Your task to perform on an android device: turn pop-ups off in chrome Image 0: 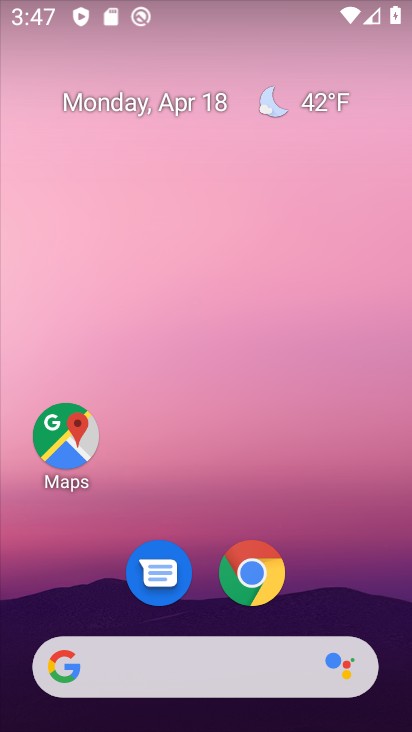
Step 0: click (251, 577)
Your task to perform on an android device: turn pop-ups off in chrome Image 1: 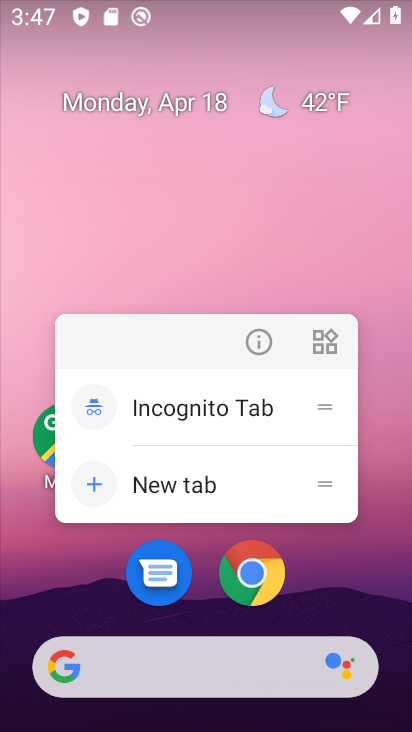
Step 1: click (256, 579)
Your task to perform on an android device: turn pop-ups off in chrome Image 2: 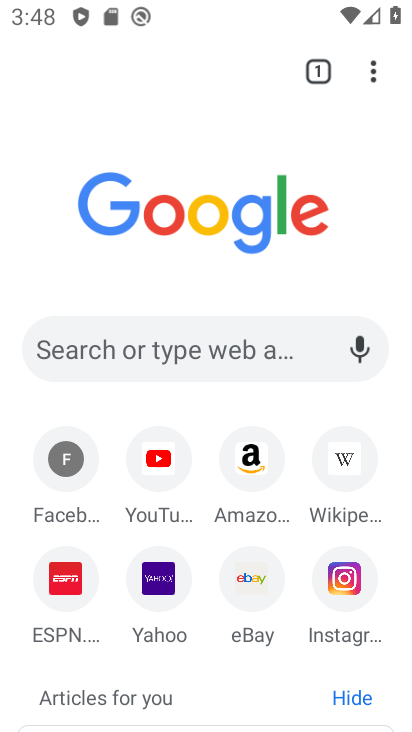
Step 2: click (371, 67)
Your task to perform on an android device: turn pop-ups off in chrome Image 3: 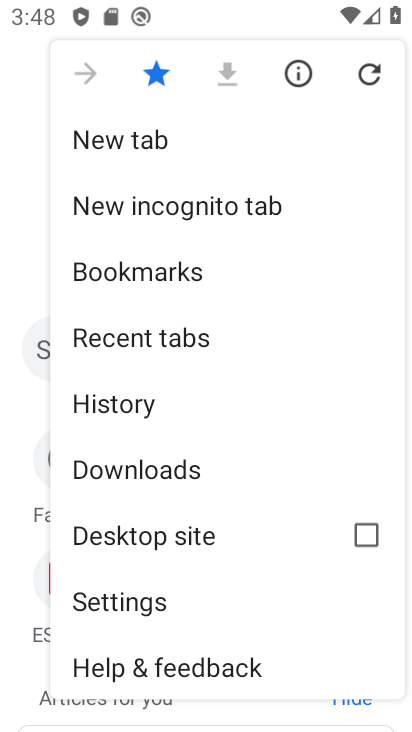
Step 3: click (128, 607)
Your task to perform on an android device: turn pop-ups off in chrome Image 4: 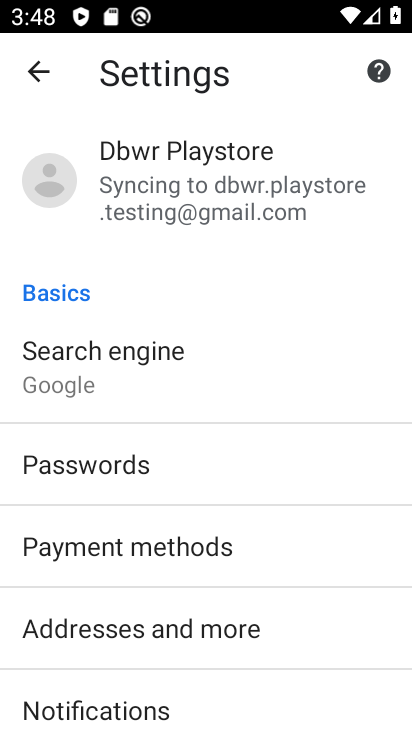
Step 4: drag from (167, 716) to (135, 391)
Your task to perform on an android device: turn pop-ups off in chrome Image 5: 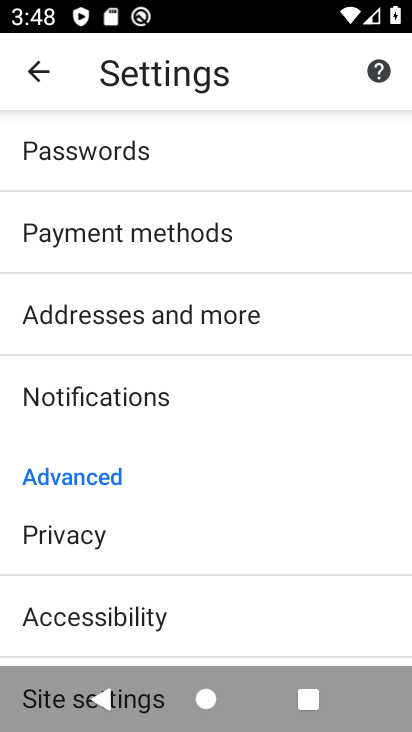
Step 5: drag from (115, 651) to (91, 415)
Your task to perform on an android device: turn pop-ups off in chrome Image 6: 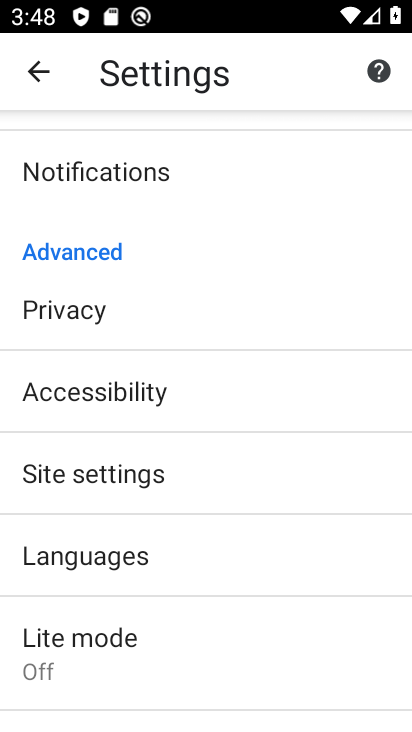
Step 6: click (123, 482)
Your task to perform on an android device: turn pop-ups off in chrome Image 7: 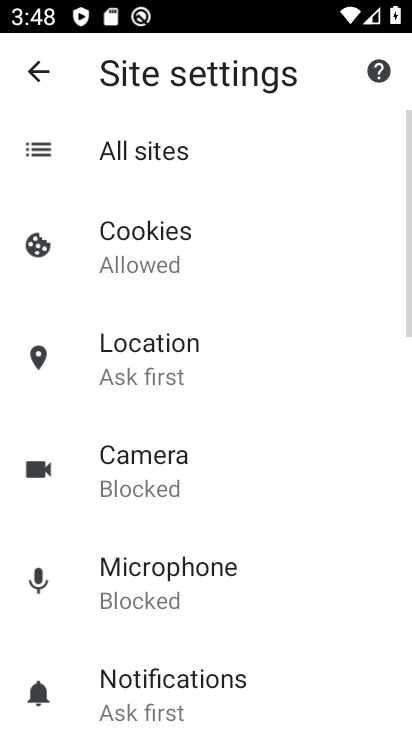
Step 7: drag from (171, 708) to (151, 428)
Your task to perform on an android device: turn pop-ups off in chrome Image 8: 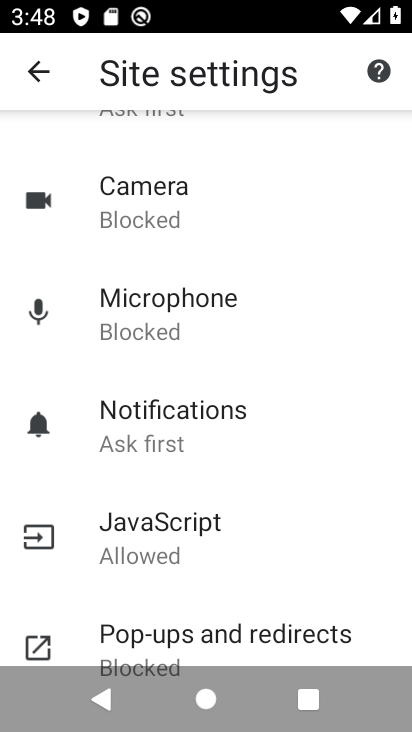
Step 8: click (166, 643)
Your task to perform on an android device: turn pop-ups off in chrome Image 9: 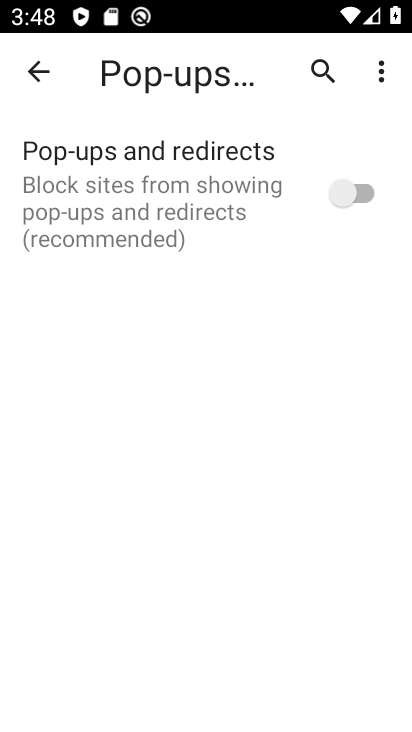
Step 9: task complete